Your task to perform on an android device: find snoozed emails in the gmail app Image 0: 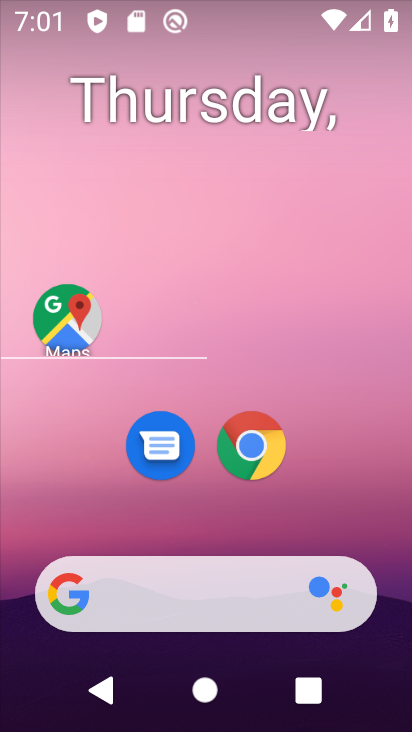
Step 0: drag from (309, 360) to (253, 228)
Your task to perform on an android device: find snoozed emails in the gmail app Image 1: 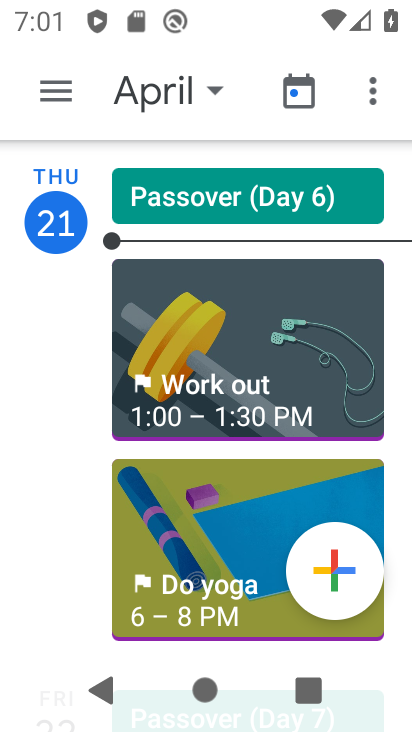
Step 1: press home button
Your task to perform on an android device: find snoozed emails in the gmail app Image 2: 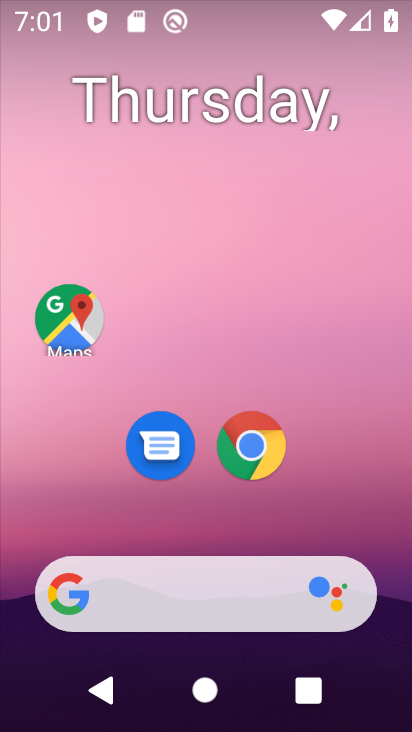
Step 2: drag from (357, 516) to (265, 141)
Your task to perform on an android device: find snoozed emails in the gmail app Image 3: 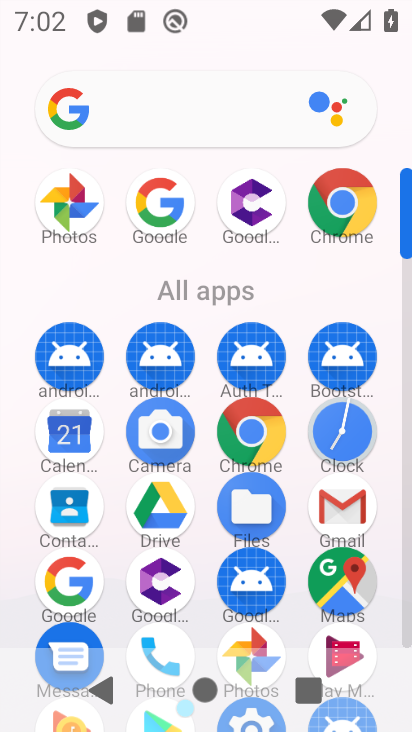
Step 3: click (343, 504)
Your task to perform on an android device: find snoozed emails in the gmail app Image 4: 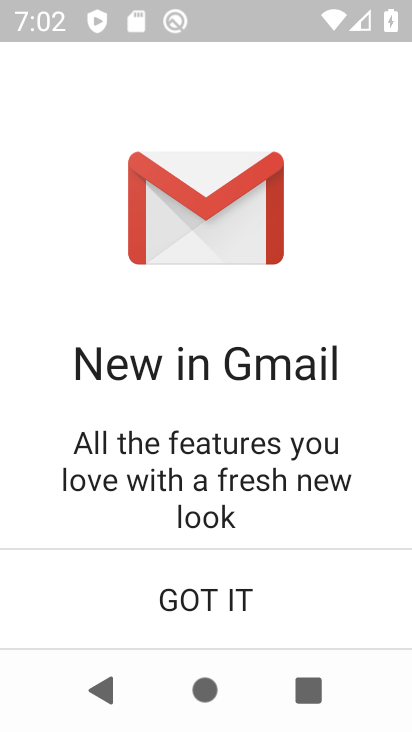
Step 4: click (201, 609)
Your task to perform on an android device: find snoozed emails in the gmail app Image 5: 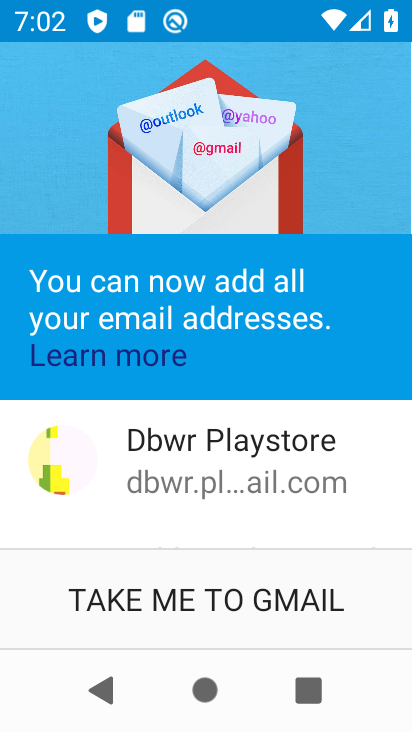
Step 5: click (200, 604)
Your task to perform on an android device: find snoozed emails in the gmail app Image 6: 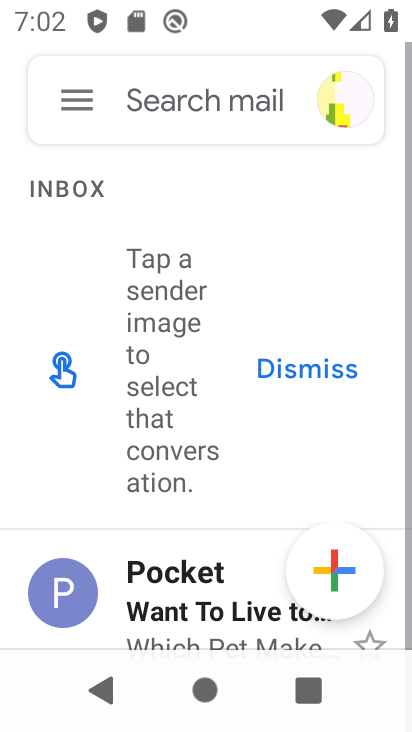
Step 6: click (69, 91)
Your task to perform on an android device: find snoozed emails in the gmail app Image 7: 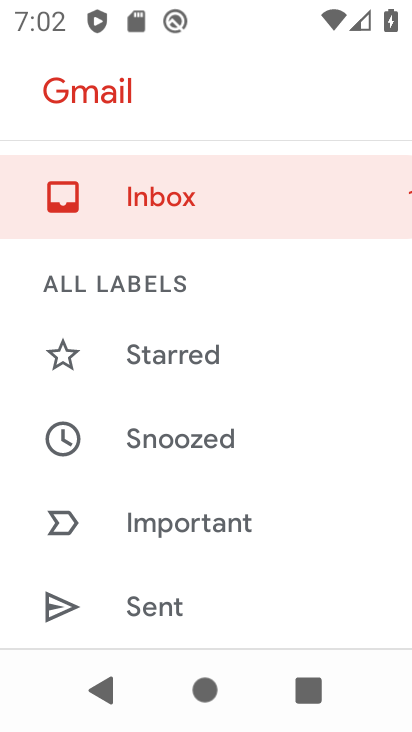
Step 7: click (204, 458)
Your task to perform on an android device: find snoozed emails in the gmail app Image 8: 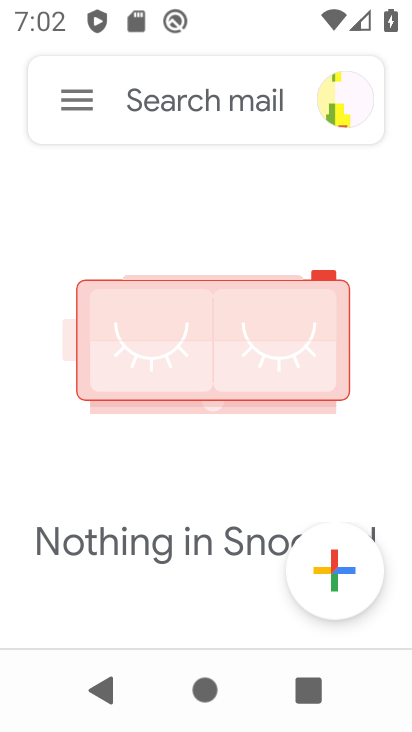
Step 8: task complete